Your task to perform on an android device: check storage Image 0: 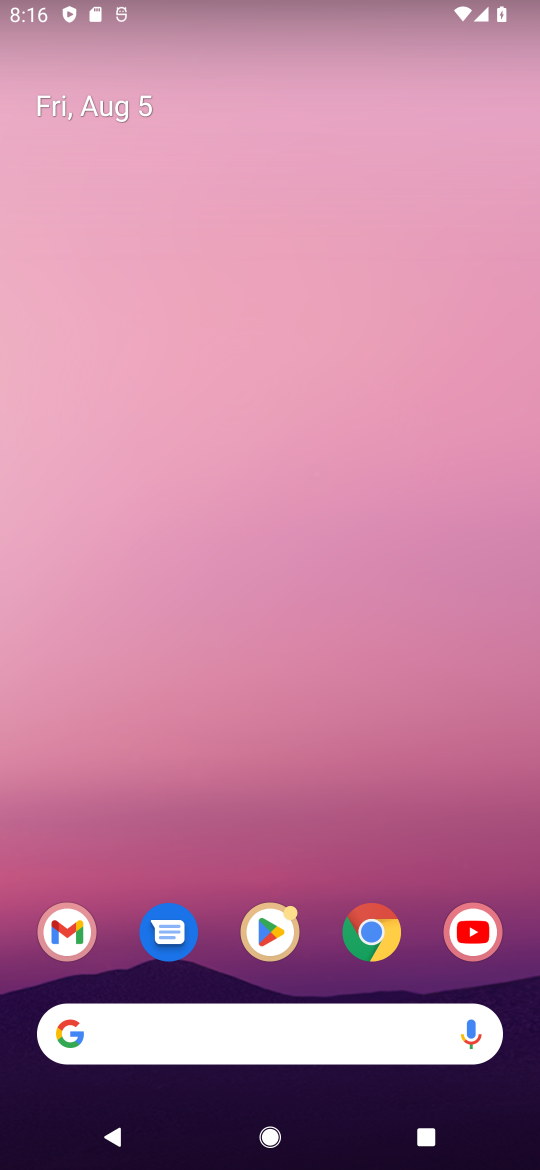
Step 0: drag from (351, 830) to (178, 302)
Your task to perform on an android device: check storage Image 1: 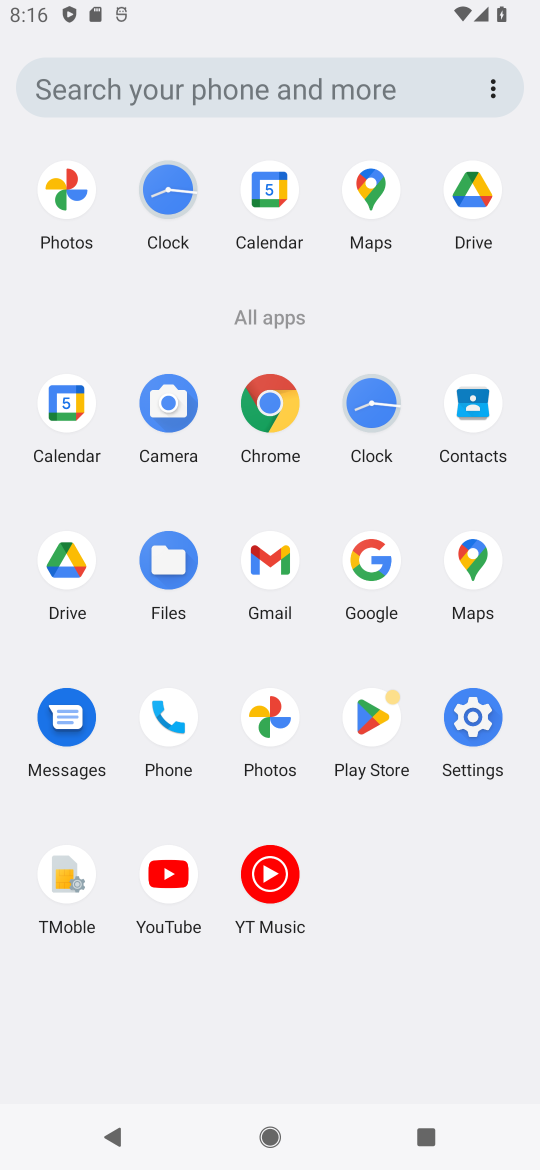
Step 1: click (492, 714)
Your task to perform on an android device: check storage Image 2: 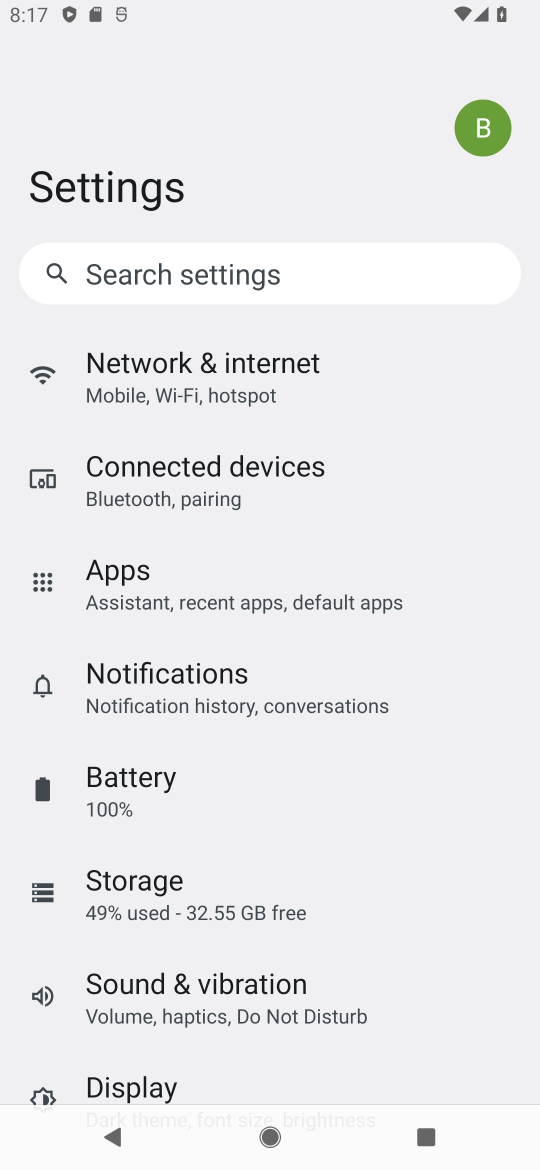
Step 2: click (255, 914)
Your task to perform on an android device: check storage Image 3: 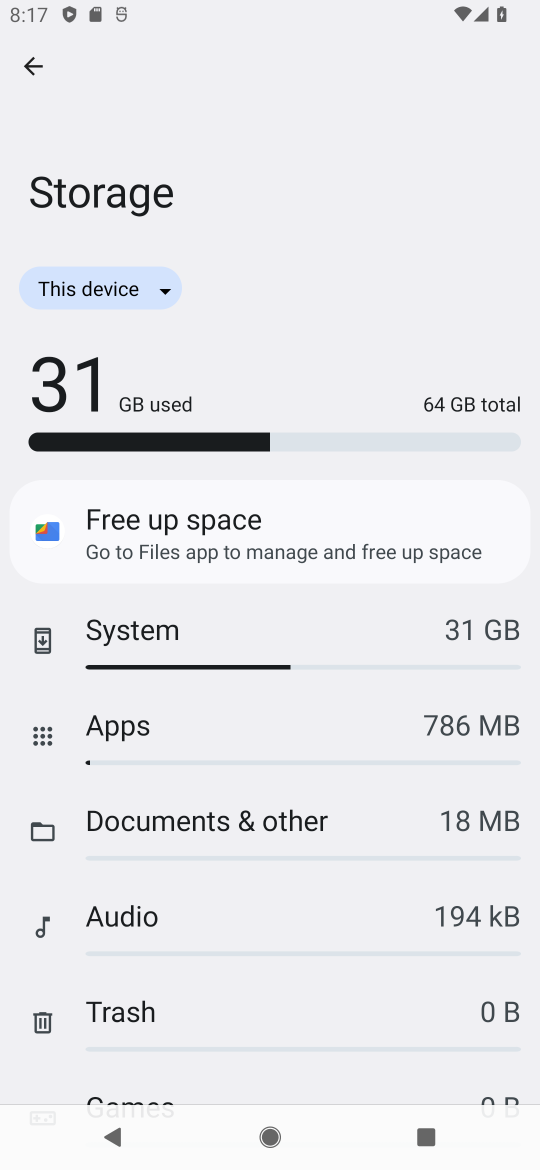
Step 3: task complete